Your task to perform on an android device: What is the recent news? Image 0: 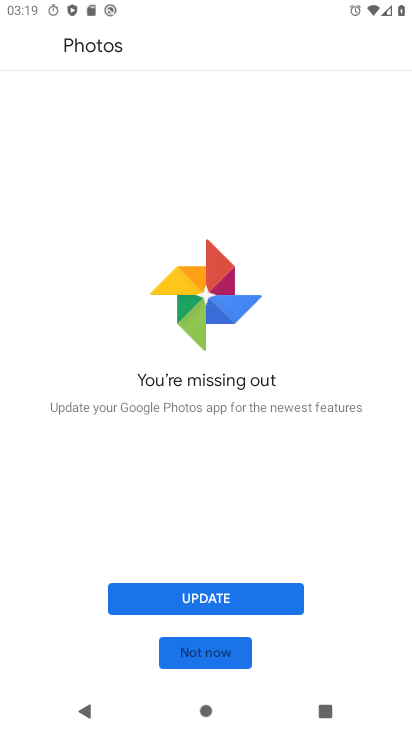
Step 0: press home button
Your task to perform on an android device: What is the recent news? Image 1: 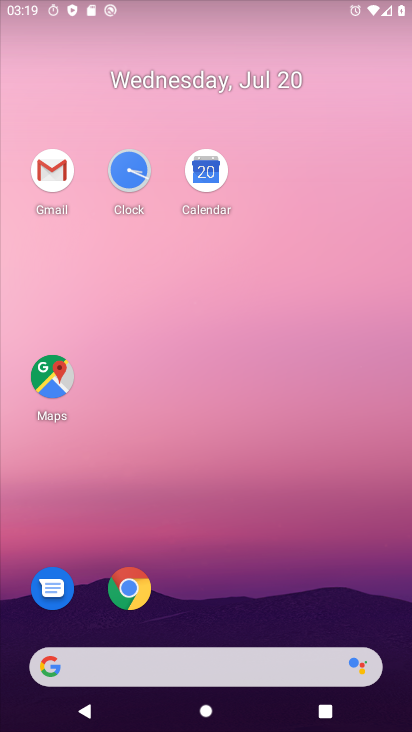
Step 1: drag from (254, 565) to (269, 166)
Your task to perform on an android device: What is the recent news? Image 2: 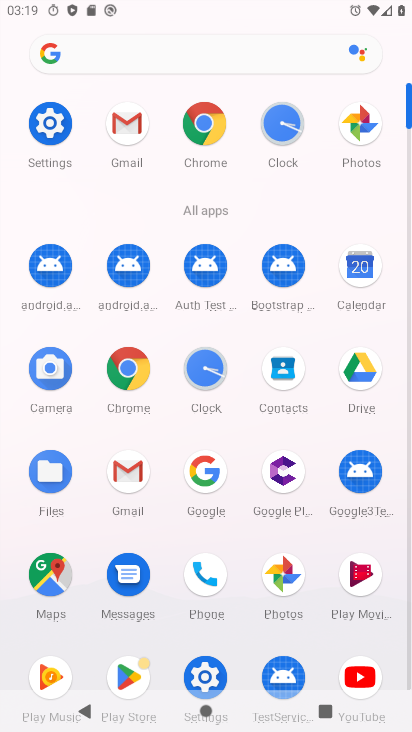
Step 2: drag from (211, 473) to (79, 273)
Your task to perform on an android device: What is the recent news? Image 3: 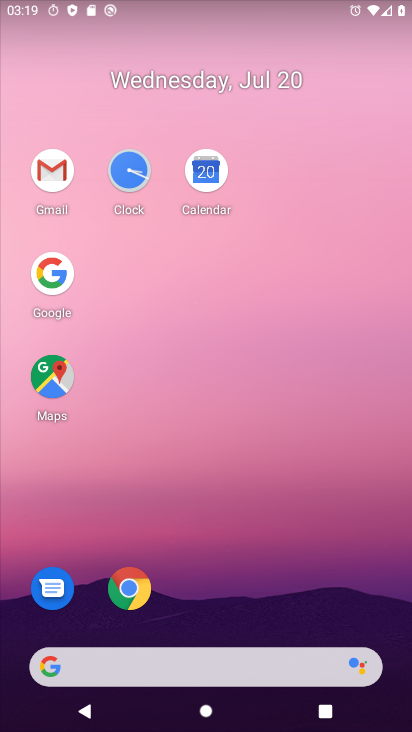
Step 3: click (41, 272)
Your task to perform on an android device: What is the recent news? Image 4: 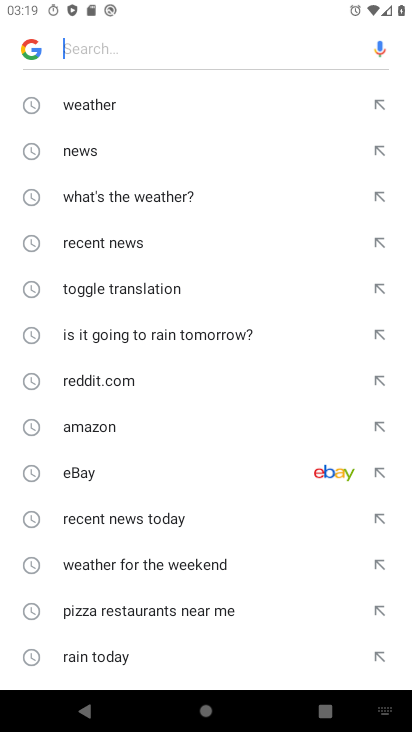
Step 4: click (171, 233)
Your task to perform on an android device: What is the recent news? Image 5: 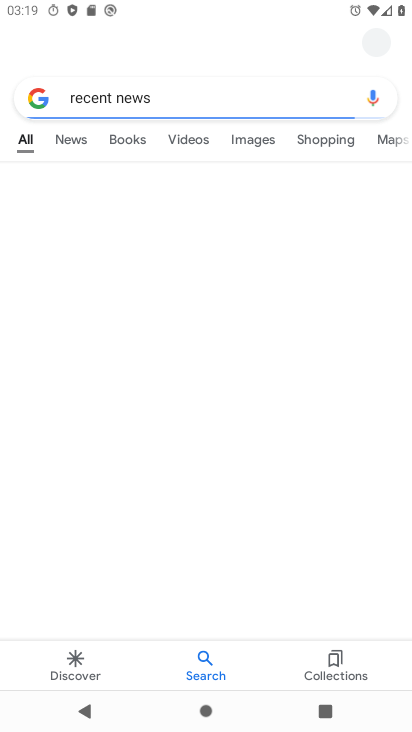
Step 5: task complete